Your task to perform on an android device: Open CNN.com Image 0: 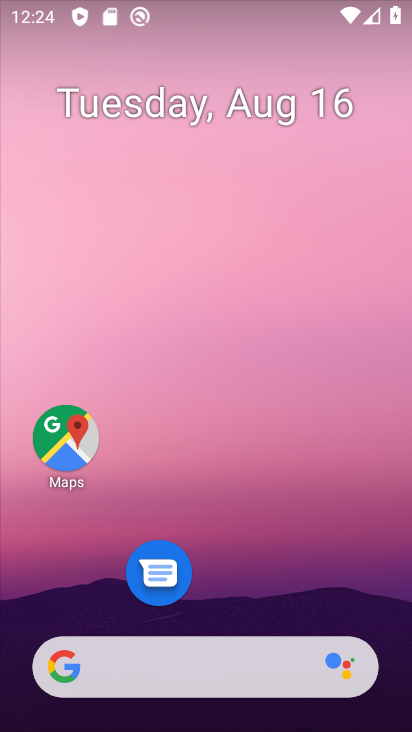
Step 0: drag from (193, 608) to (210, 190)
Your task to perform on an android device: Open CNN.com Image 1: 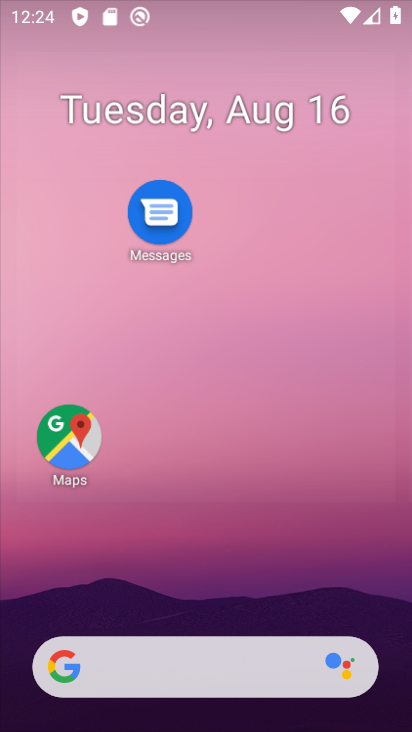
Step 1: click (288, 595)
Your task to perform on an android device: Open CNN.com Image 2: 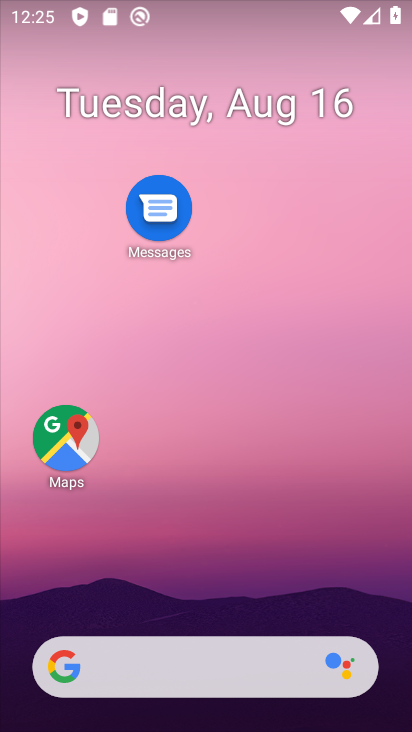
Step 2: drag from (288, 595) to (239, 38)
Your task to perform on an android device: Open CNN.com Image 3: 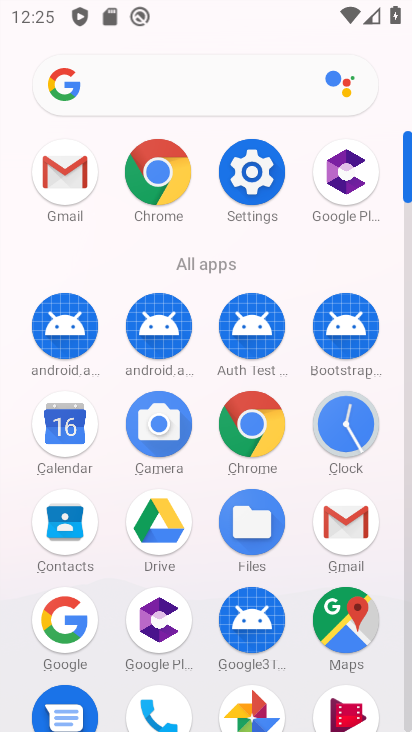
Step 3: click (152, 180)
Your task to perform on an android device: Open CNN.com Image 4: 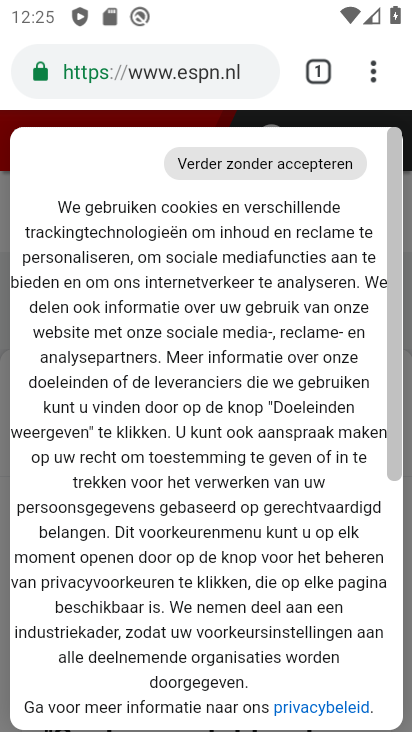
Step 4: click (315, 69)
Your task to perform on an android device: Open CNN.com Image 5: 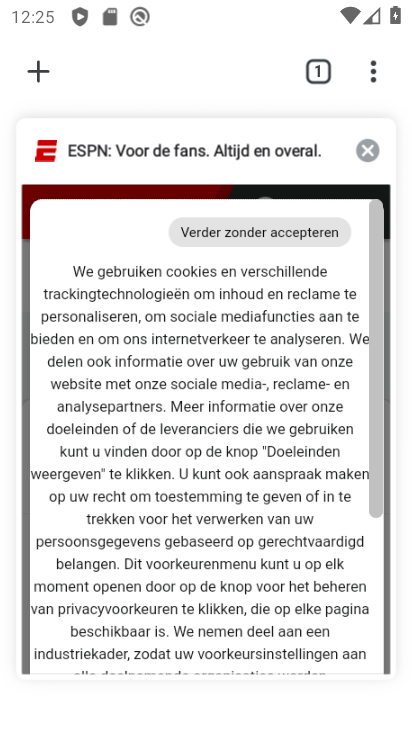
Step 5: click (28, 67)
Your task to perform on an android device: Open CNN.com Image 6: 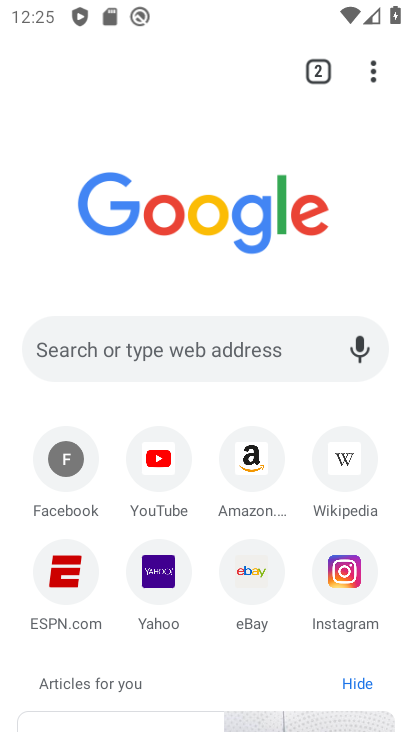
Step 6: click (172, 362)
Your task to perform on an android device: Open CNN.com Image 7: 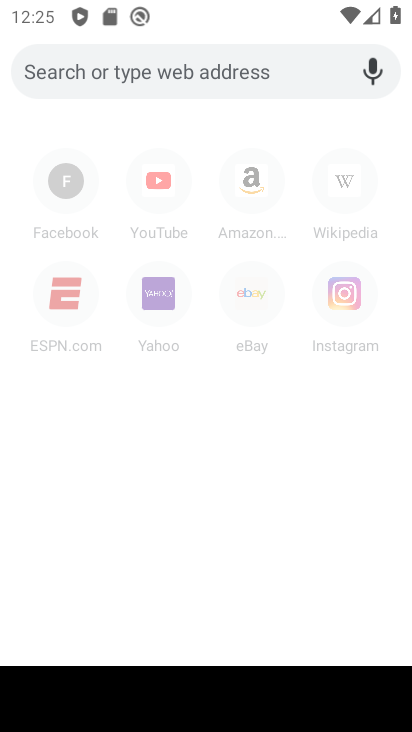
Step 7: type "CNN.com"
Your task to perform on an android device: Open CNN.com Image 8: 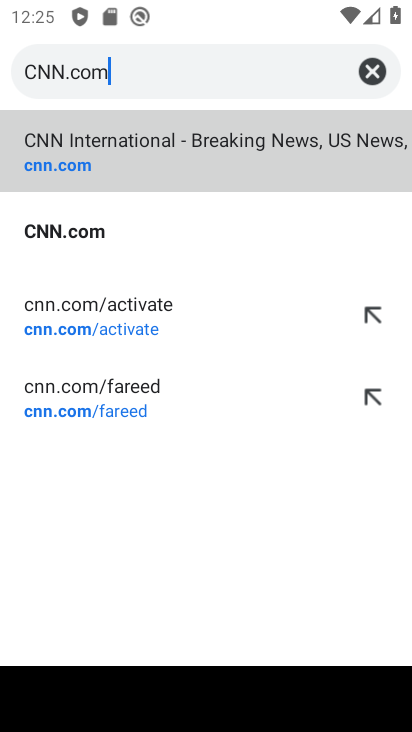
Step 8: type ""
Your task to perform on an android device: Open CNN.com Image 9: 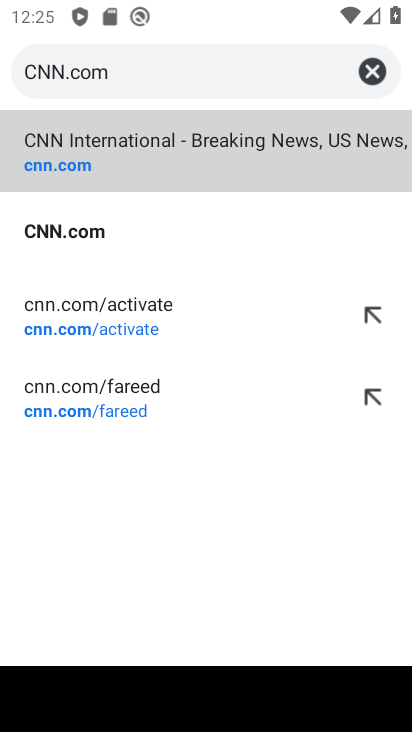
Step 9: click (155, 161)
Your task to perform on an android device: Open CNN.com Image 10: 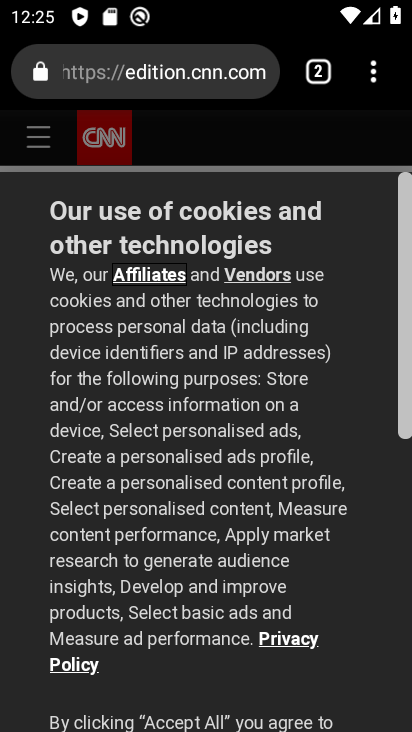
Step 10: task complete